Your task to perform on an android device: Open Chrome and go to the settings page Image 0: 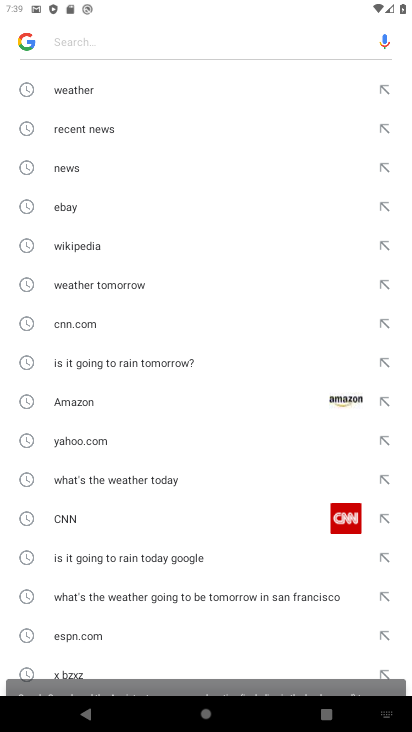
Step 0: press back button
Your task to perform on an android device: Open Chrome and go to the settings page Image 1: 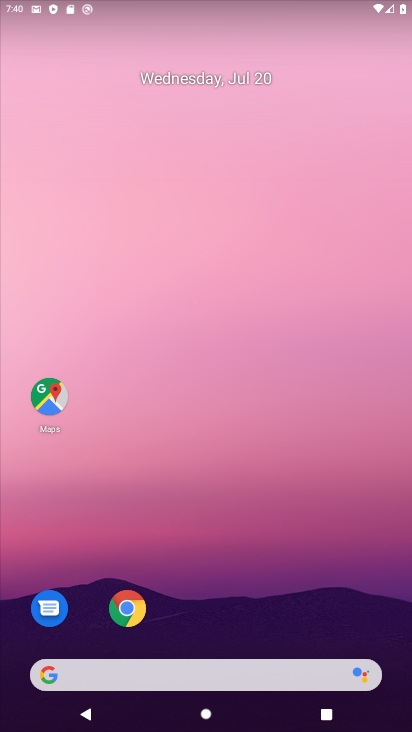
Step 1: click (136, 603)
Your task to perform on an android device: Open Chrome and go to the settings page Image 2: 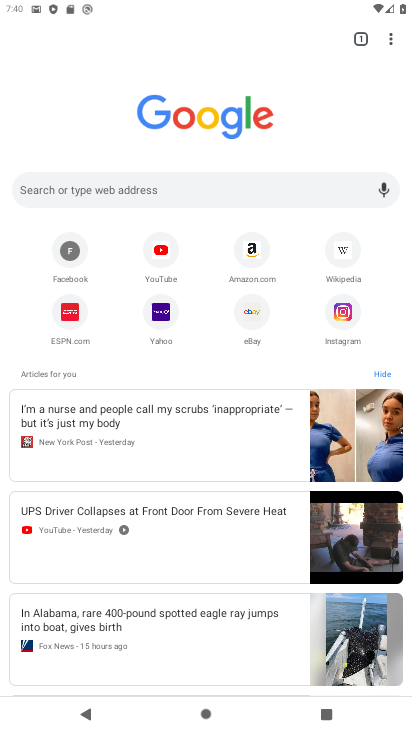
Step 2: click (389, 43)
Your task to perform on an android device: Open Chrome and go to the settings page Image 3: 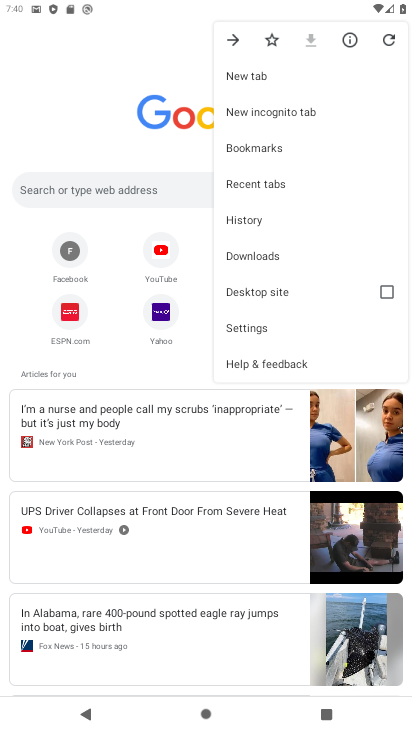
Step 3: click (266, 341)
Your task to perform on an android device: Open Chrome and go to the settings page Image 4: 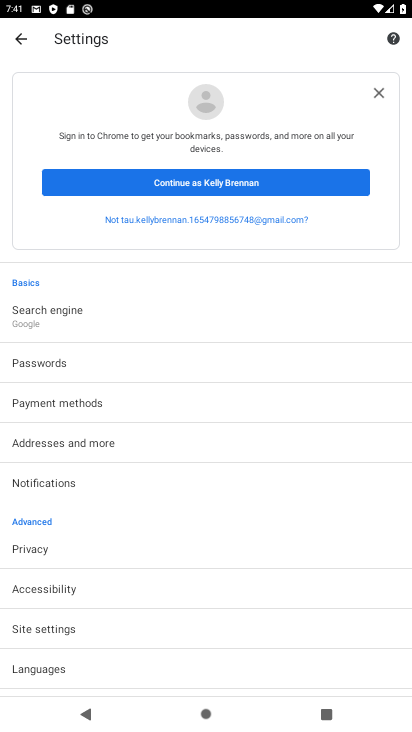
Step 4: task complete